Your task to perform on an android device: Set the phone to "Do not disturb". Image 0: 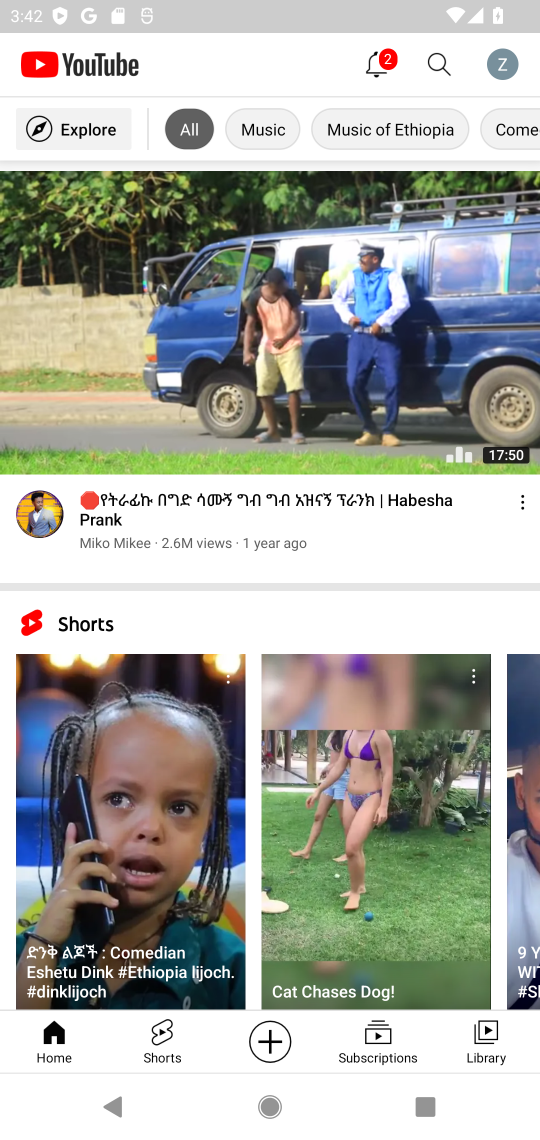
Step 0: press home button
Your task to perform on an android device: Set the phone to "Do not disturb". Image 1: 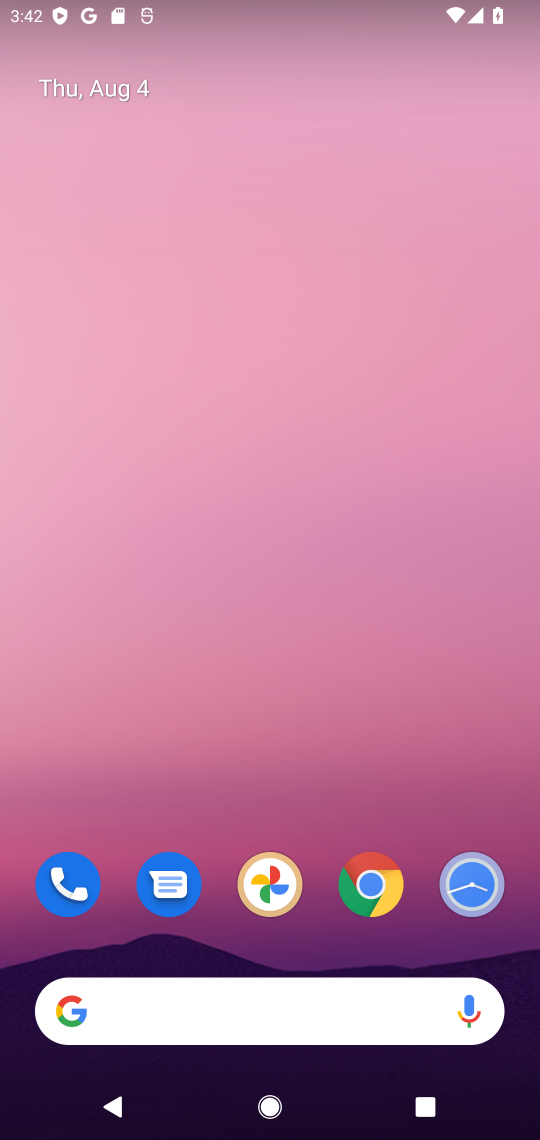
Step 1: drag from (193, 937) to (273, 266)
Your task to perform on an android device: Set the phone to "Do not disturb". Image 2: 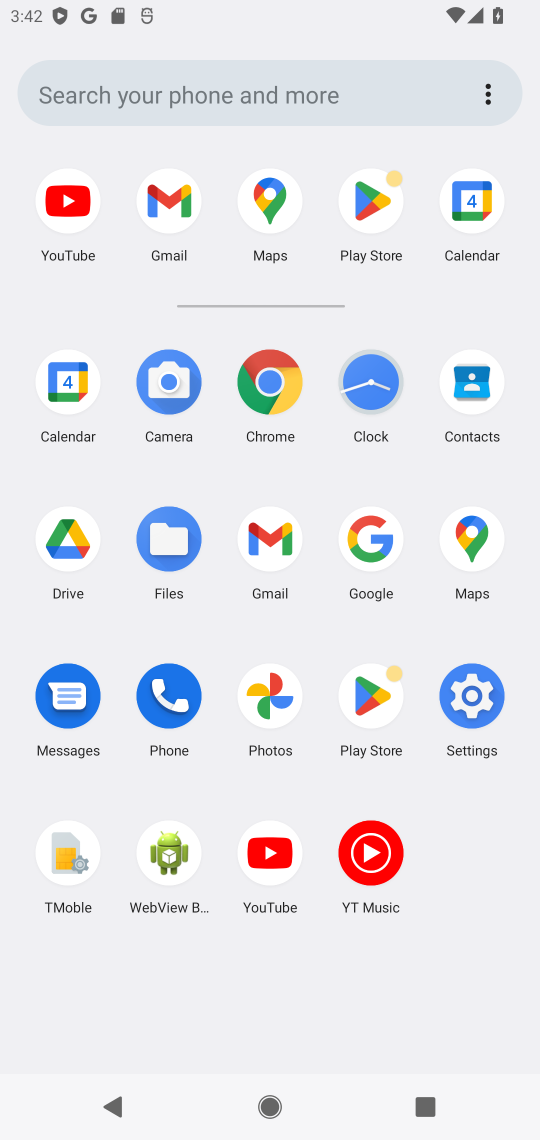
Step 2: click (475, 707)
Your task to perform on an android device: Set the phone to "Do not disturb". Image 3: 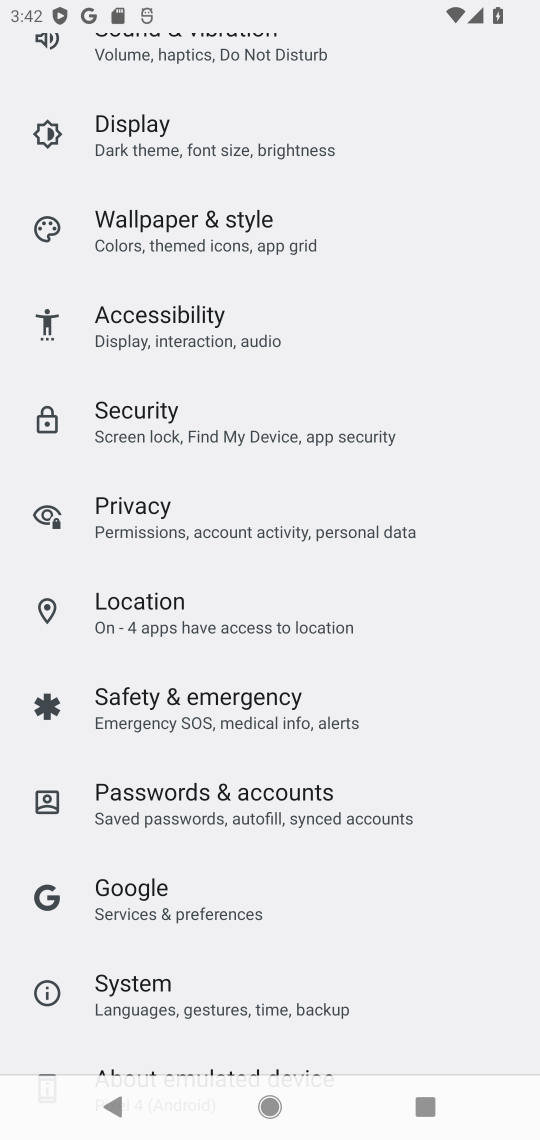
Step 3: drag from (228, 289) to (207, 1121)
Your task to perform on an android device: Set the phone to "Do not disturb". Image 4: 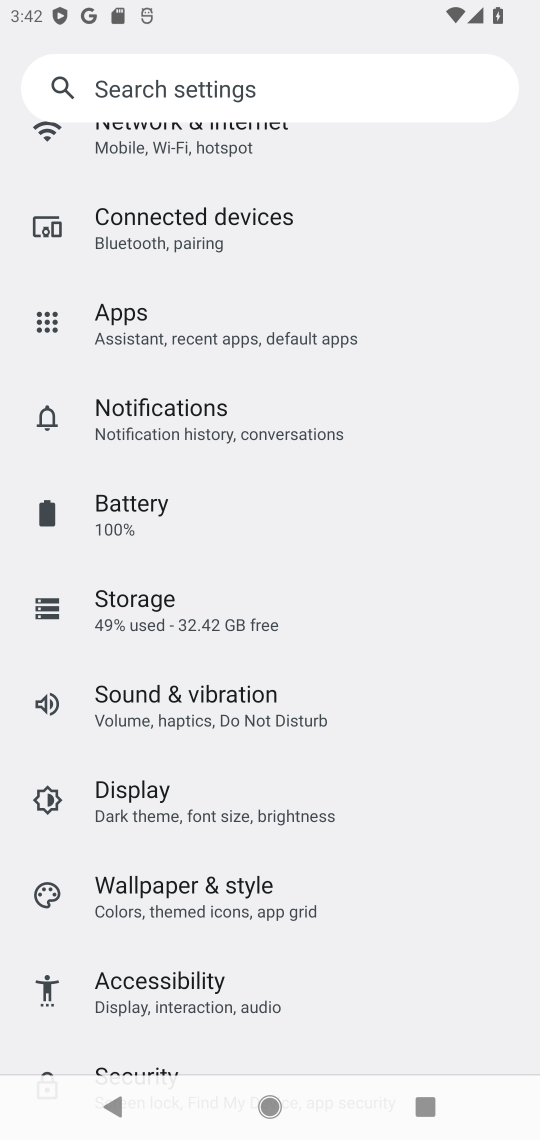
Step 4: drag from (270, 240) to (308, 1138)
Your task to perform on an android device: Set the phone to "Do not disturb". Image 5: 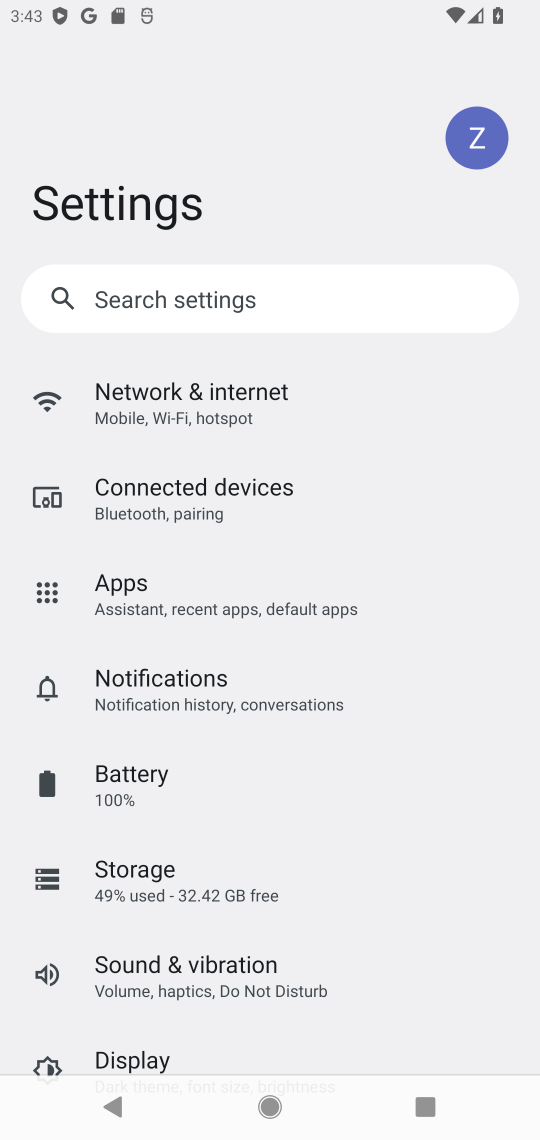
Step 5: click (161, 686)
Your task to perform on an android device: Set the phone to "Do not disturb". Image 6: 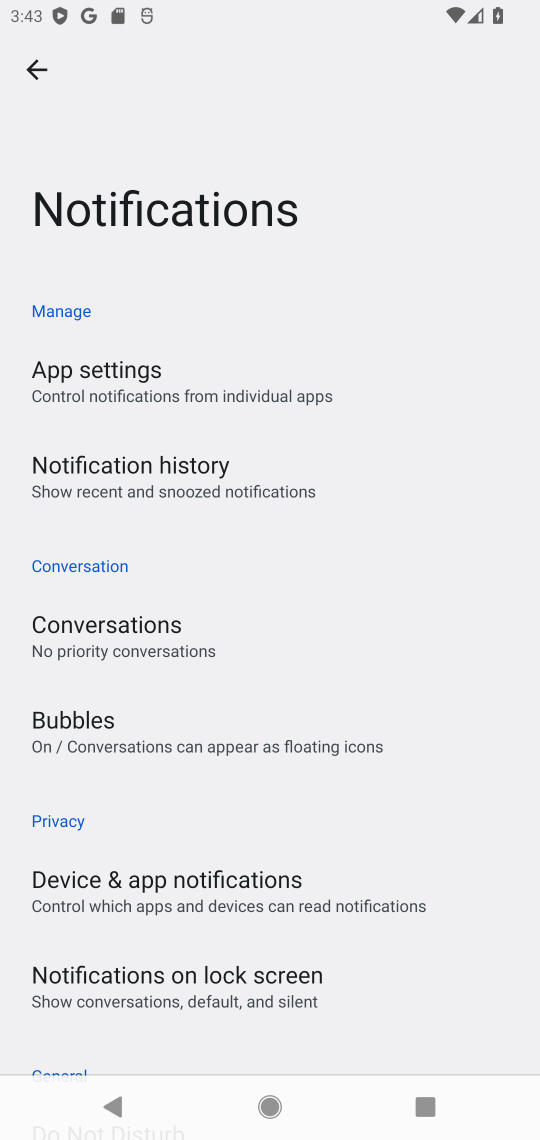
Step 6: drag from (174, 894) to (362, 5)
Your task to perform on an android device: Set the phone to "Do not disturb". Image 7: 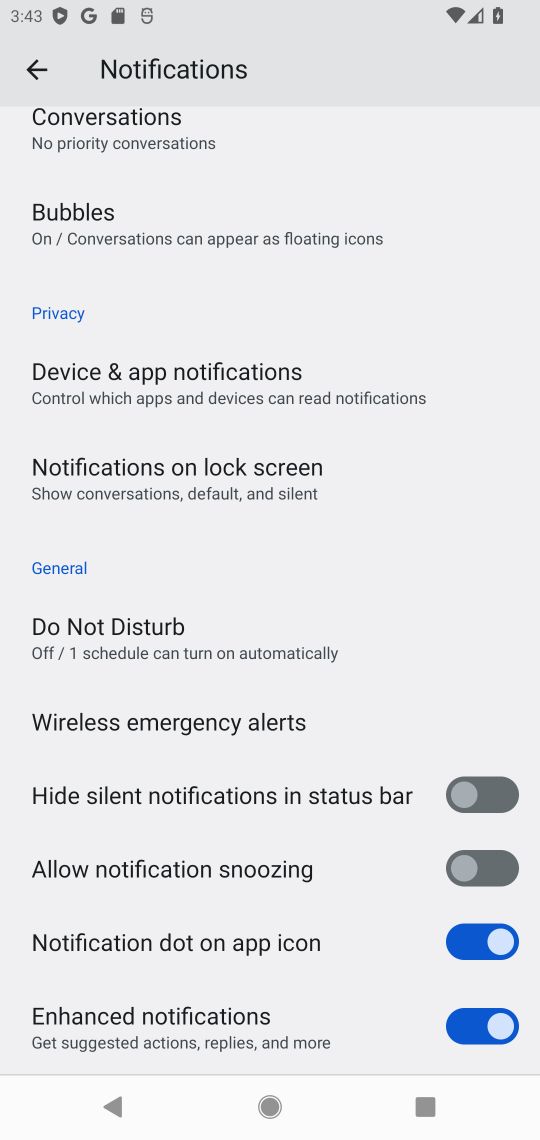
Step 7: drag from (250, 940) to (395, 220)
Your task to perform on an android device: Set the phone to "Do not disturb". Image 8: 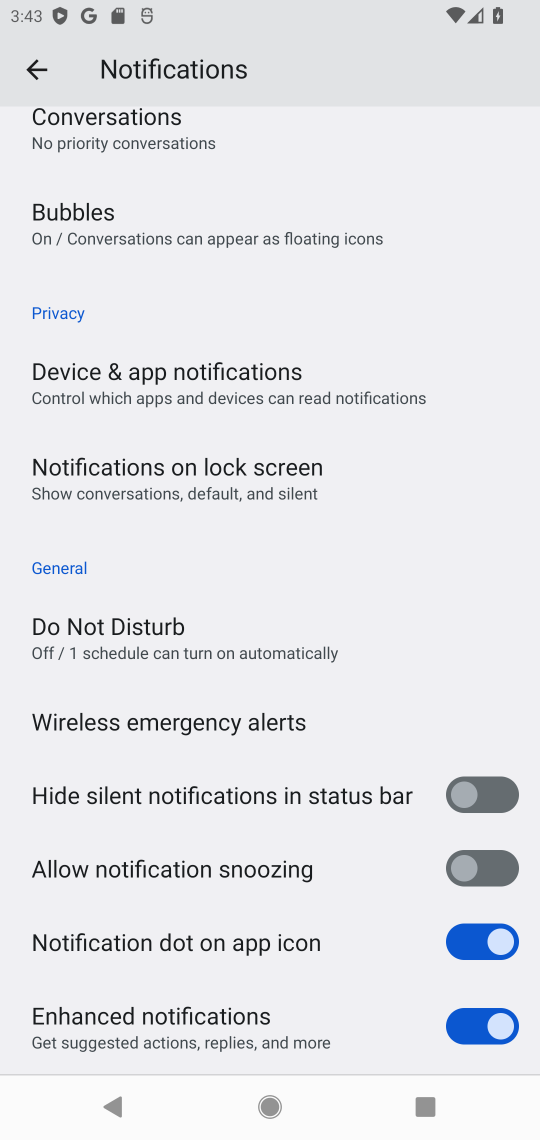
Step 8: click (131, 650)
Your task to perform on an android device: Set the phone to "Do not disturb". Image 9: 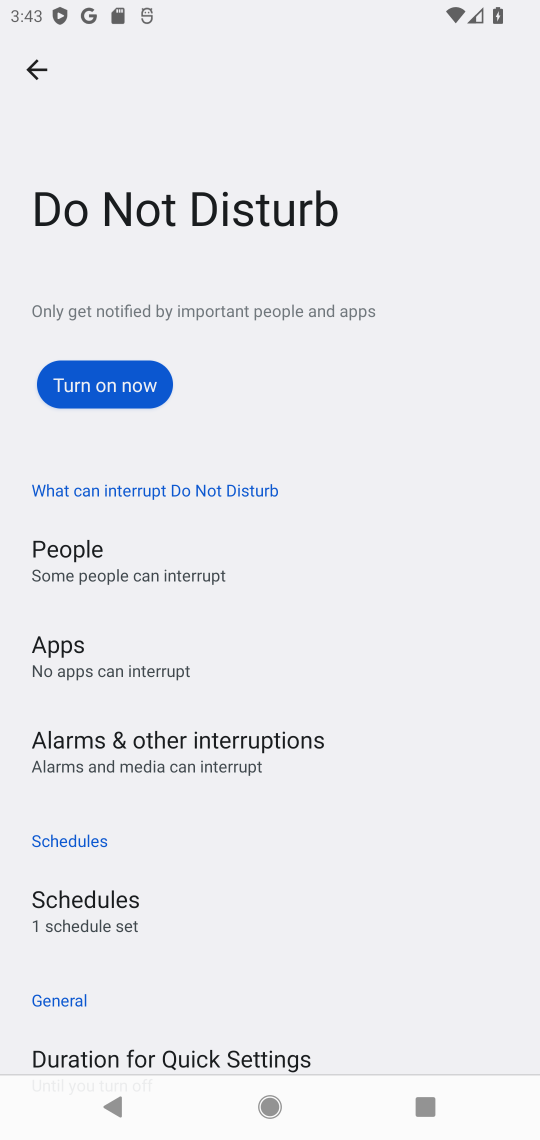
Step 9: drag from (193, 891) to (371, 236)
Your task to perform on an android device: Set the phone to "Do not disturb". Image 10: 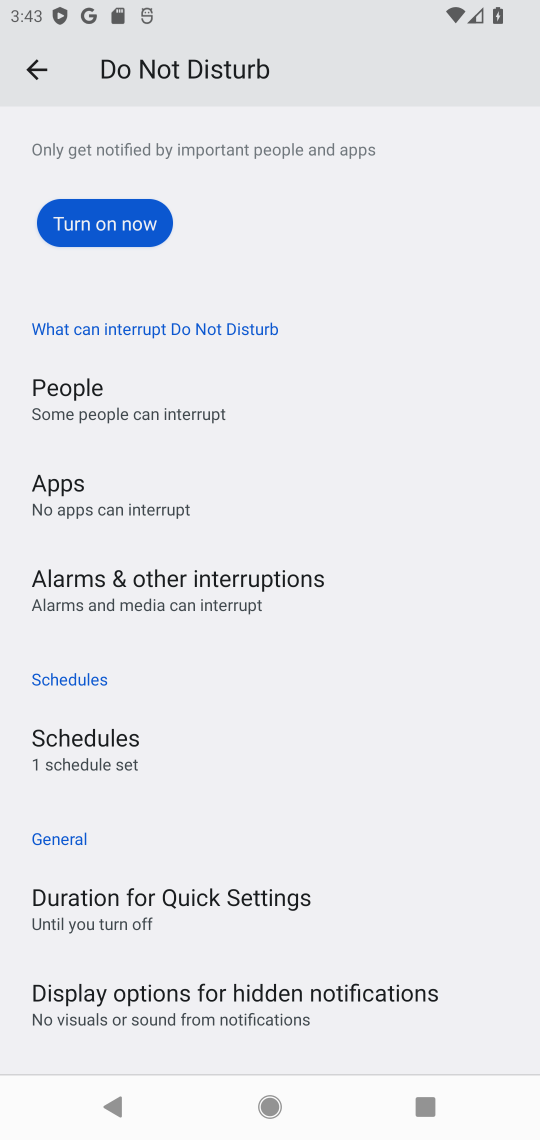
Step 10: drag from (299, 321) to (338, 997)
Your task to perform on an android device: Set the phone to "Do not disturb". Image 11: 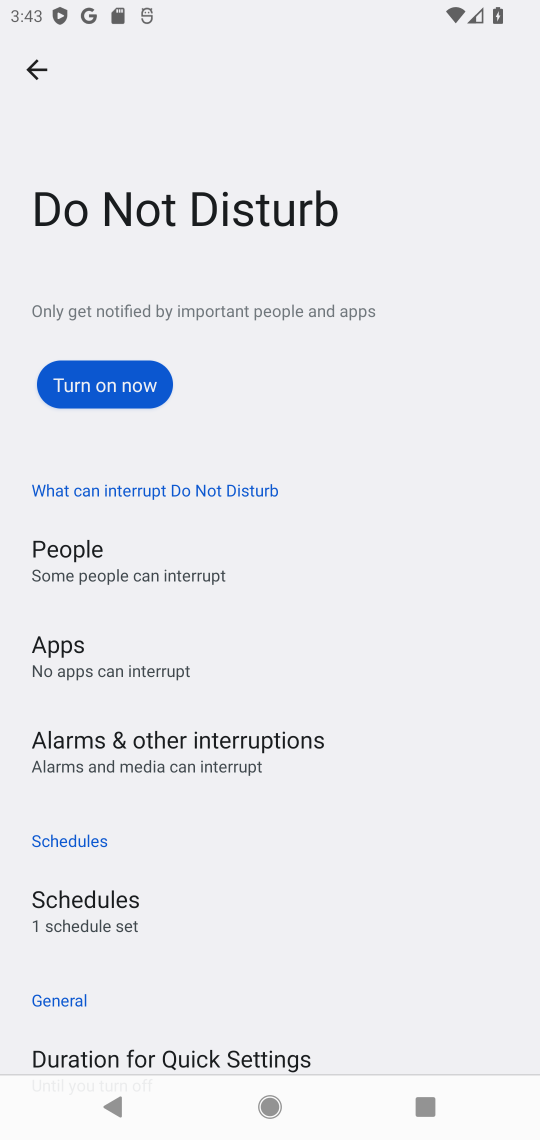
Step 11: click (52, 395)
Your task to perform on an android device: Set the phone to "Do not disturb". Image 12: 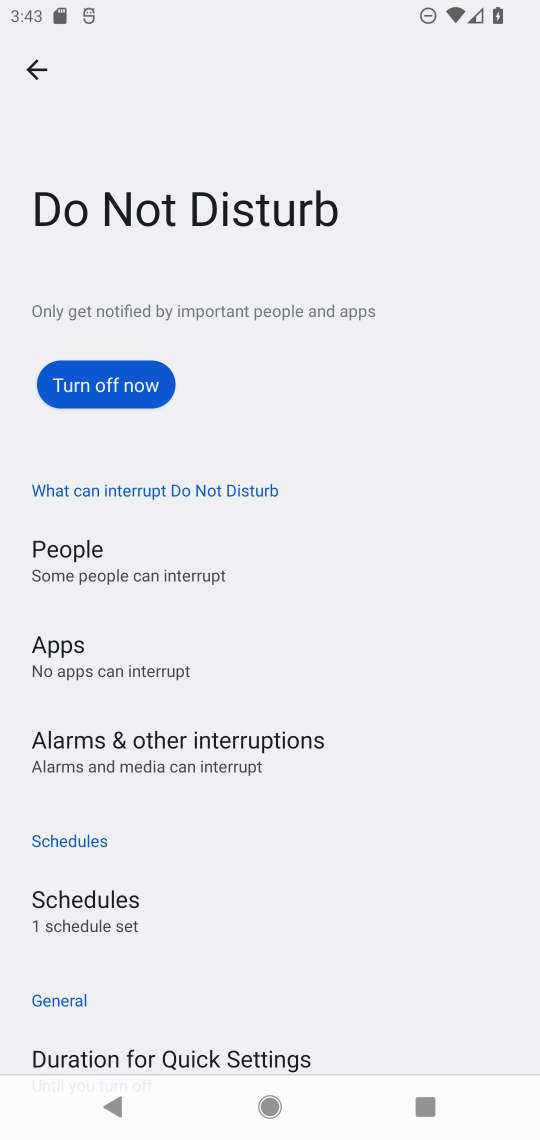
Step 12: click (85, 366)
Your task to perform on an android device: Set the phone to "Do not disturb". Image 13: 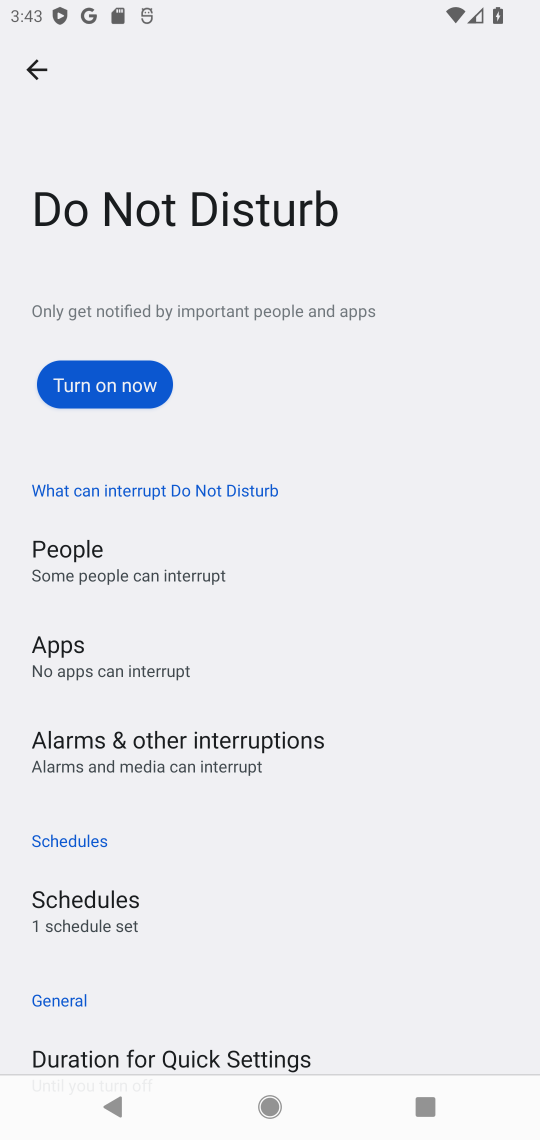
Step 13: task complete